Your task to perform on an android device: What's the weather going to be this weekend? Image 0: 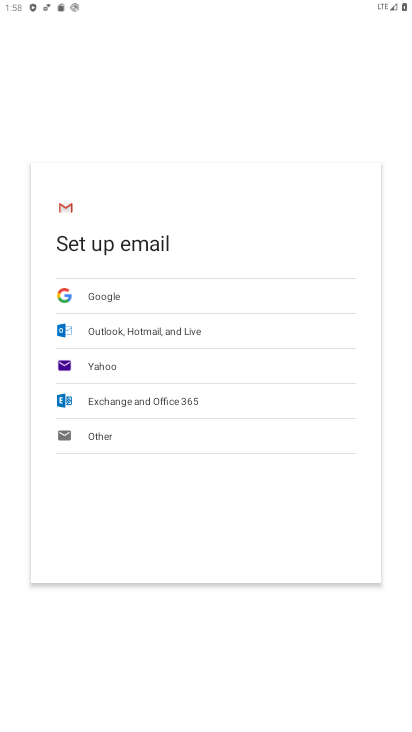
Step 0: press home button
Your task to perform on an android device: What's the weather going to be this weekend? Image 1: 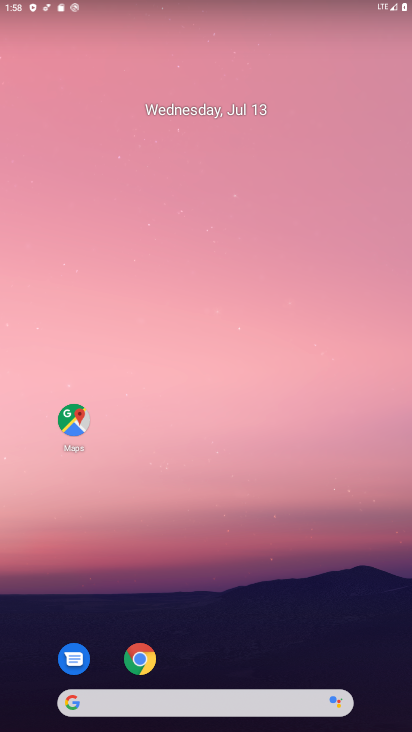
Step 1: drag from (379, 664) to (343, 148)
Your task to perform on an android device: What's the weather going to be this weekend? Image 2: 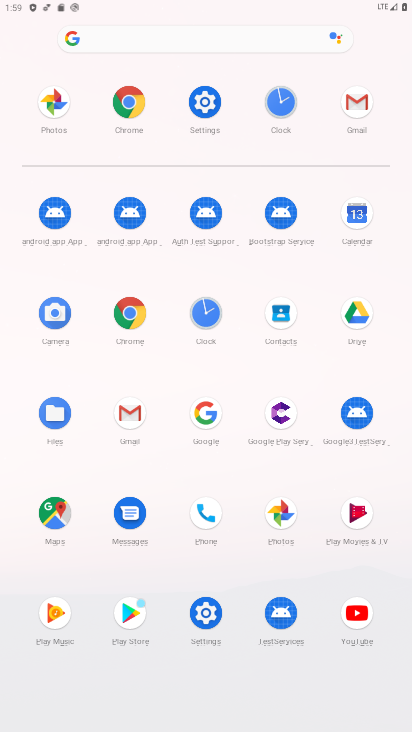
Step 2: click (126, 35)
Your task to perform on an android device: What's the weather going to be this weekend? Image 3: 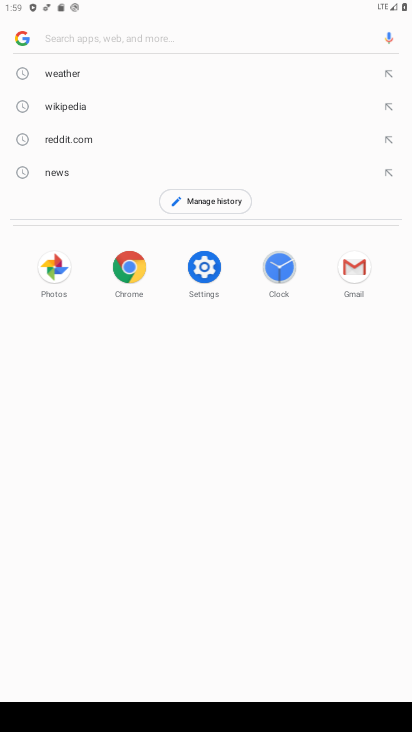
Step 3: click (65, 76)
Your task to perform on an android device: What's the weather going to be this weekend? Image 4: 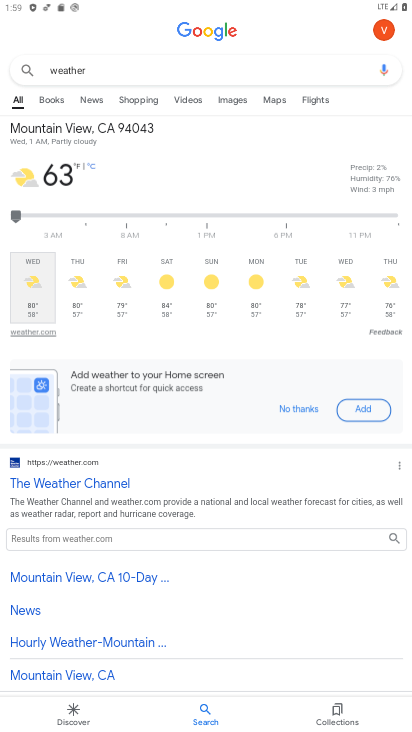
Step 4: task complete